Your task to perform on an android device: turn on the 24-hour format for clock Image 0: 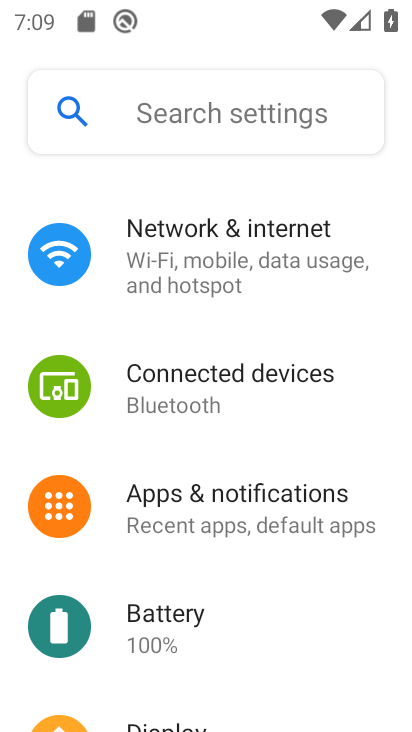
Step 0: press home button
Your task to perform on an android device: turn on the 24-hour format for clock Image 1: 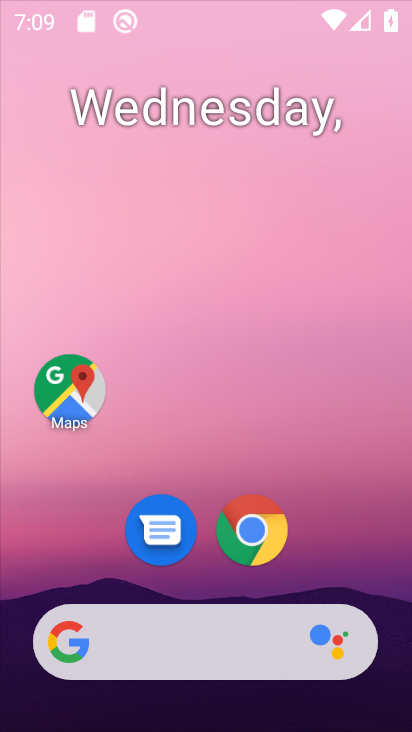
Step 1: drag from (383, 673) to (288, 47)
Your task to perform on an android device: turn on the 24-hour format for clock Image 2: 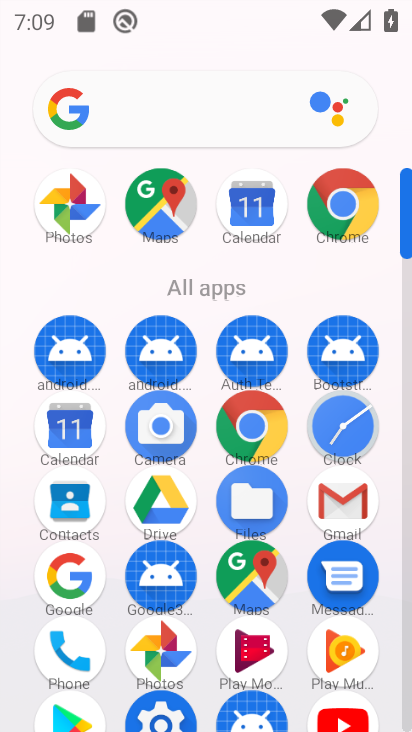
Step 2: click (346, 436)
Your task to perform on an android device: turn on the 24-hour format for clock Image 3: 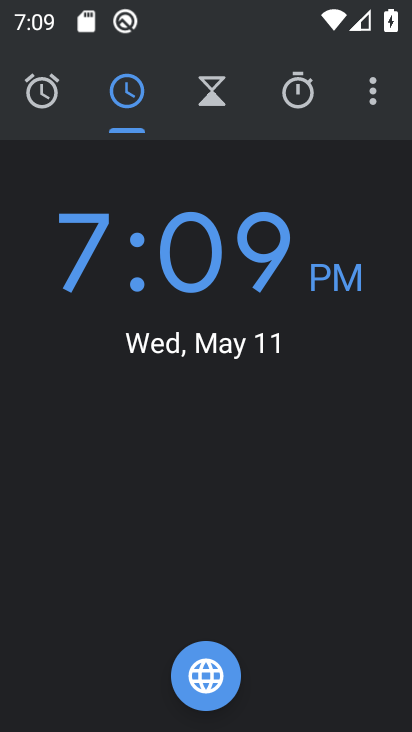
Step 3: click (372, 83)
Your task to perform on an android device: turn on the 24-hour format for clock Image 4: 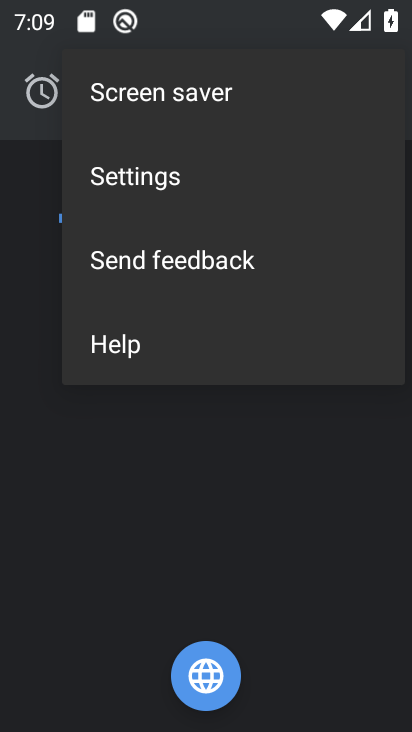
Step 4: click (250, 170)
Your task to perform on an android device: turn on the 24-hour format for clock Image 5: 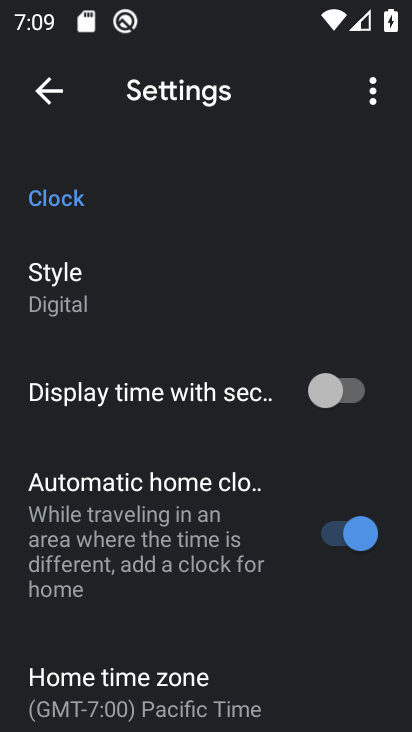
Step 5: drag from (177, 565) to (242, 92)
Your task to perform on an android device: turn on the 24-hour format for clock Image 6: 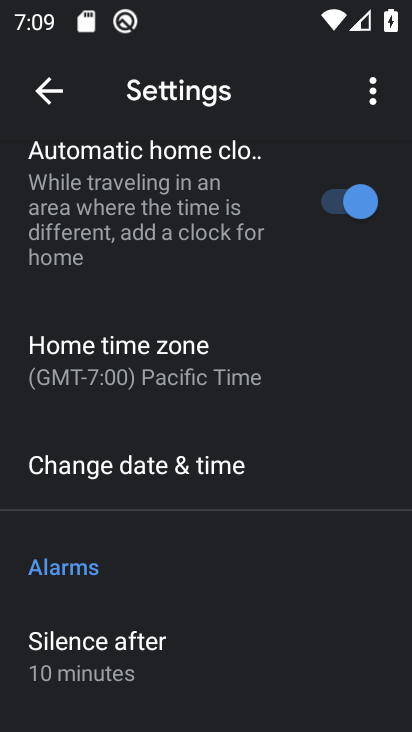
Step 6: click (194, 467)
Your task to perform on an android device: turn on the 24-hour format for clock Image 7: 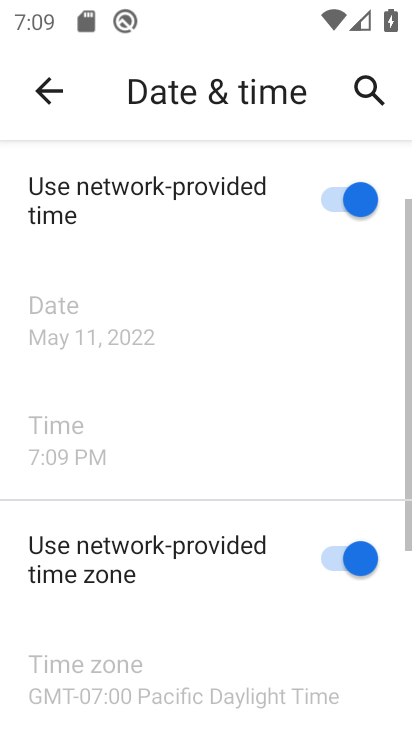
Step 7: task complete